Your task to perform on an android device: Go to display settings Image 0: 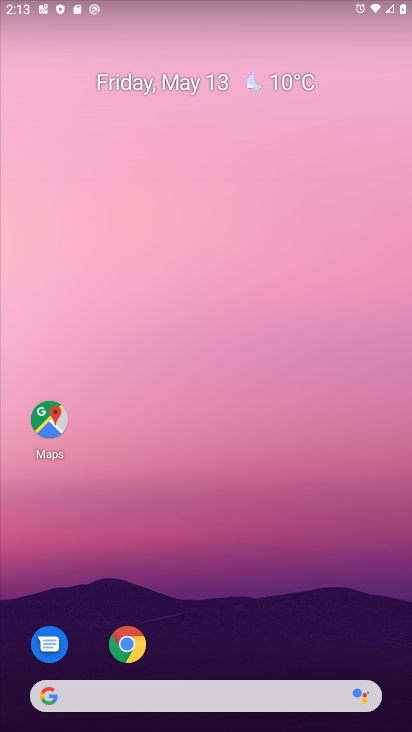
Step 0: drag from (204, 728) to (250, 140)
Your task to perform on an android device: Go to display settings Image 1: 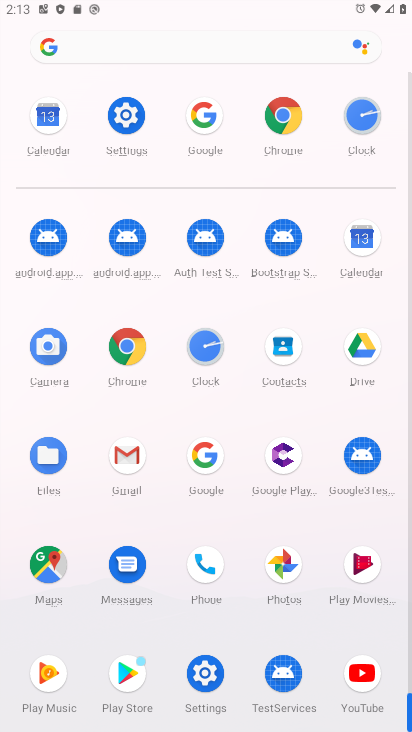
Step 1: click (128, 113)
Your task to perform on an android device: Go to display settings Image 2: 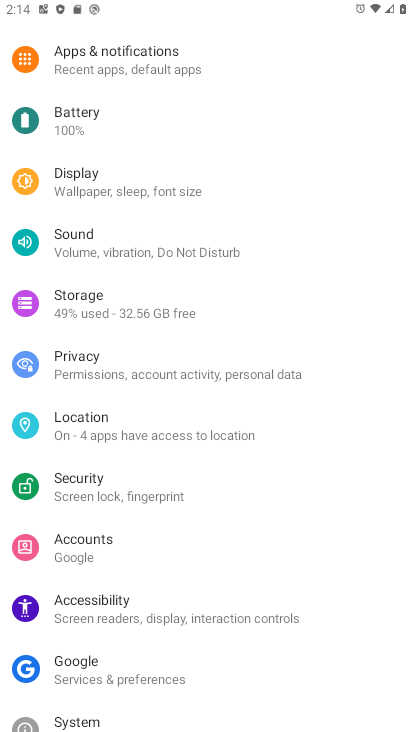
Step 2: click (85, 184)
Your task to perform on an android device: Go to display settings Image 3: 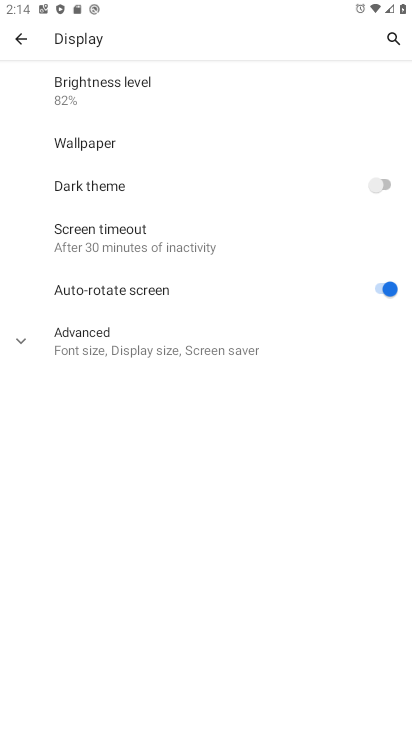
Step 3: task complete